Your task to perform on an android device: change keyboard looks Image 0: 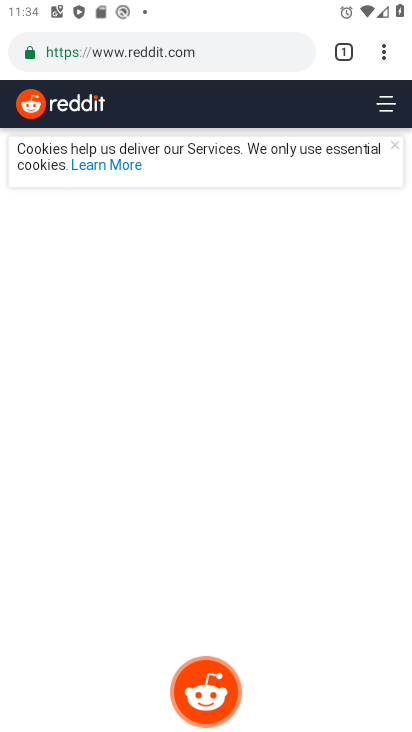
Step 0: press home button
Your task to perform on an android device: change keyboard looks Image 1: 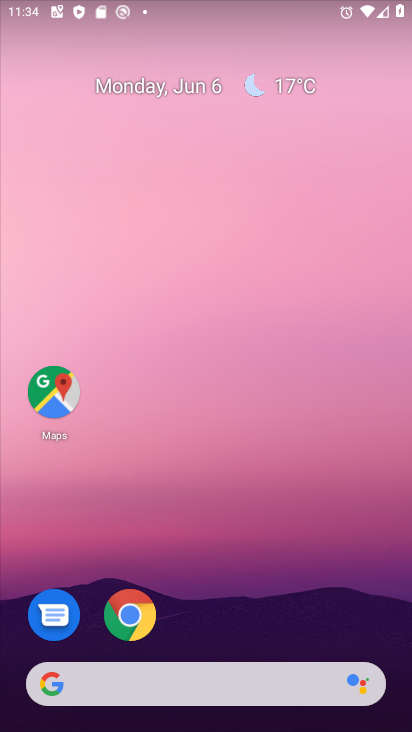
Step 1: drag from (220, 632) to (251, 171)
Your task to perform on an android device: change keyboard looks Image 2: 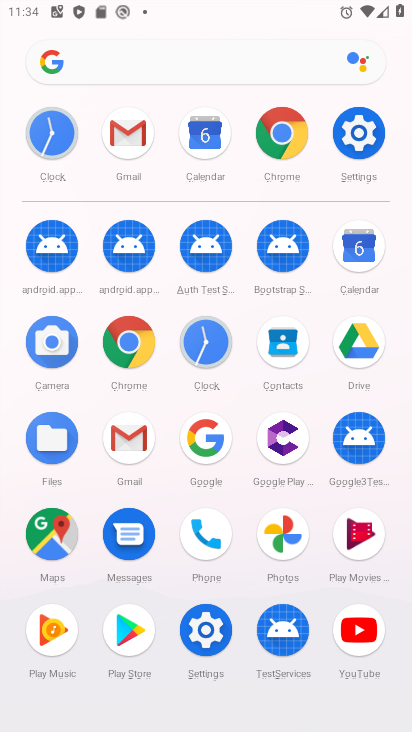
Step 2: click (355, 142)
Your task to perform on an android device: change keyboard looks Image 3: 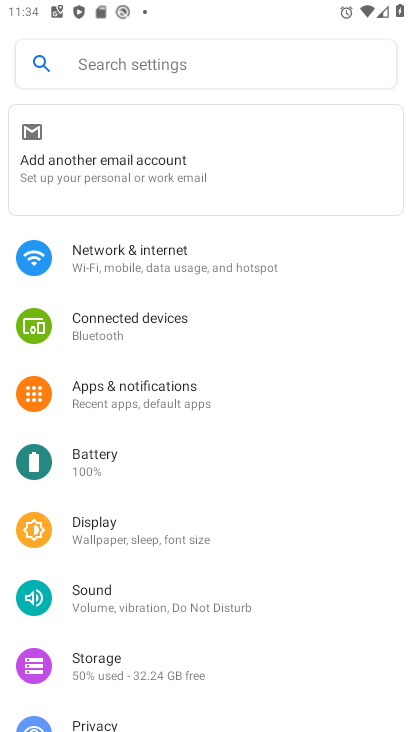
Step 3: drag from (164, 652) to (217, 179)
Your task to perform on an android device: change keyboard looks Image 4: 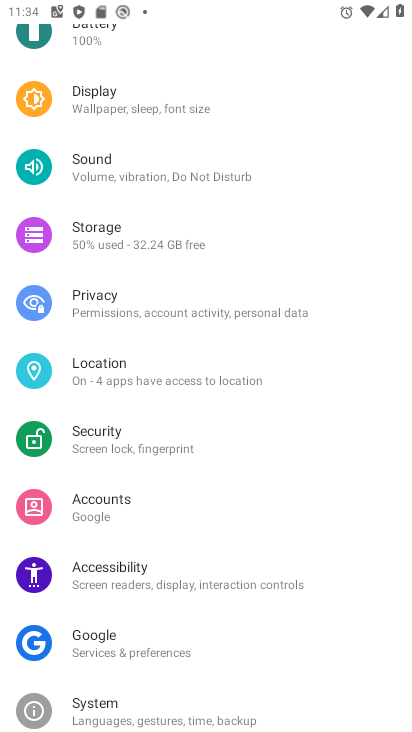
Step 4: click (135, 704)
Your task to perform on an android device: change keyboard looks Image 5: 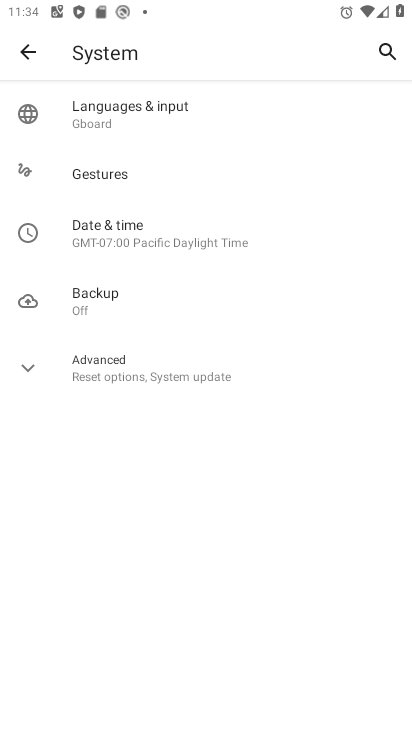
Step 5: click (138, 108)
Your task to perform on an android device: change keyboard looks Image 6: 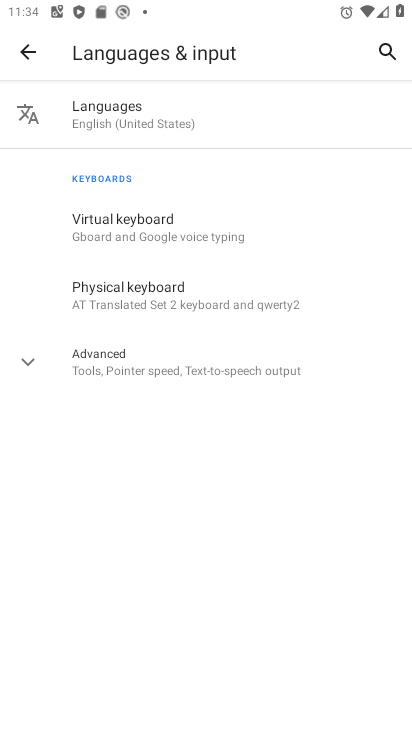
Step 6: click (137, 222)
Your task to perform on an android device: change keyboard looks Image 7: 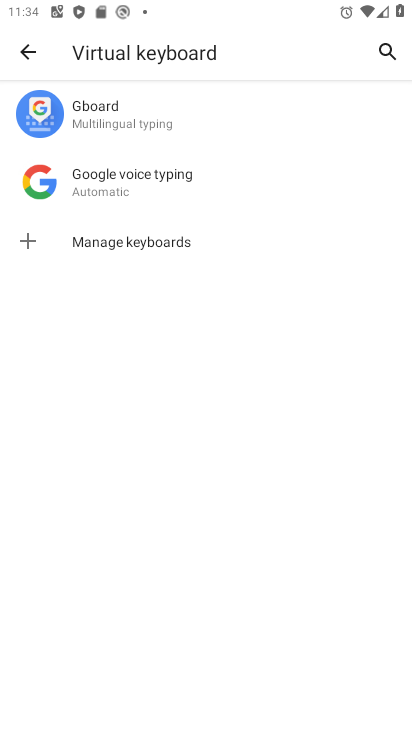
Step 7: click (175, 126)
Your task to perform on an android device: change keyboard looks Image 8: 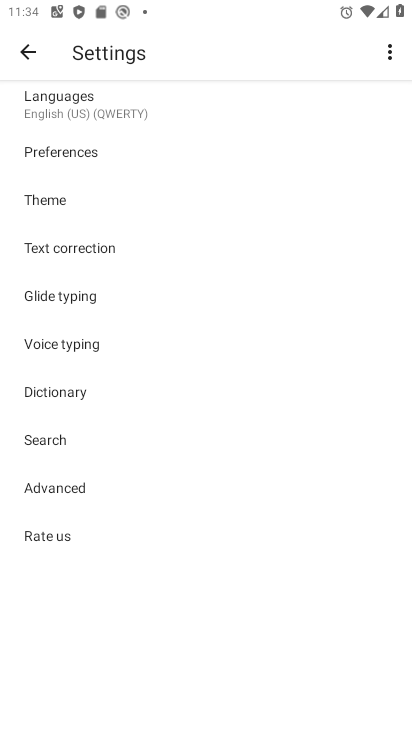
Step 8: click (87, 203)
Your task to perform on an android device: change keyboard looks Image 9: 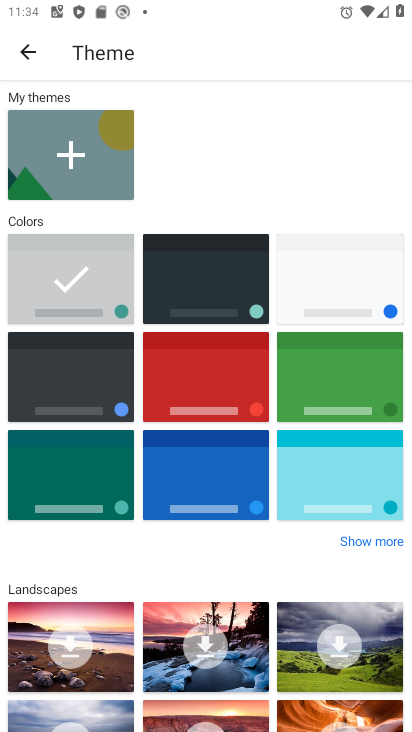
Step 9: click (216, 291)
Your task to perform on an android device: change keyboard looks Image 10: 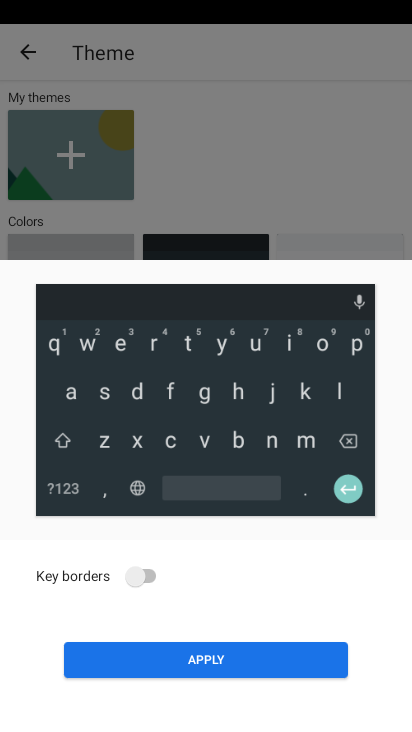
Step 10: click (201, 665)
Your task to perform on an android device: change keyboard looks Image 11: 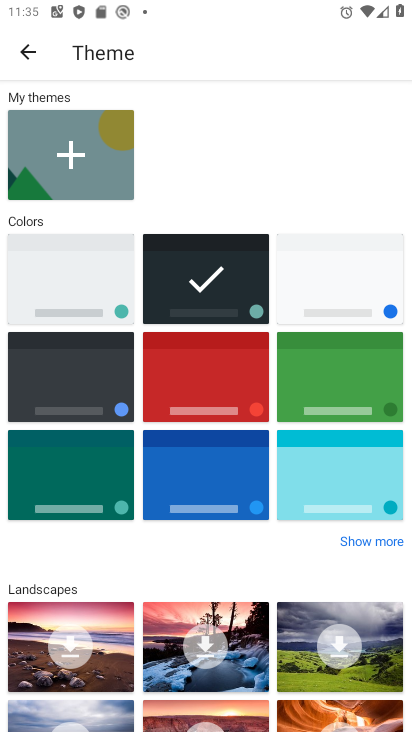
Step 11: task complete